Your task to perform on an android device: Clear the cart on ebay.com. Add "usb-c to usb-b" to the cart on ebay.com Image 0: 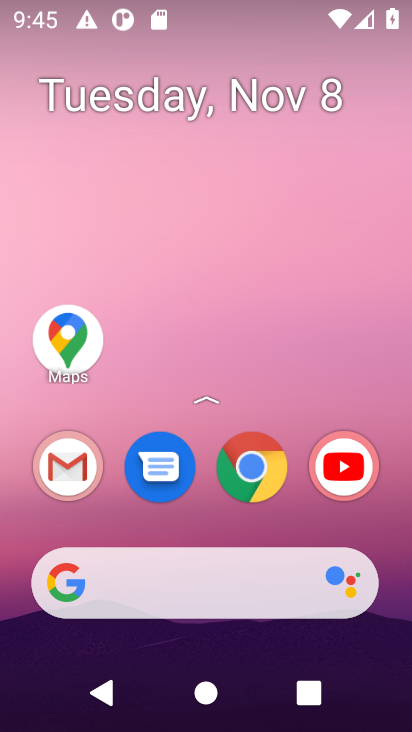
Step 0: click (229, 582)
Your task to perform on an android device: Clear the cart on ebay.com. Add "usb-c to usb-b" to the cart on ebay.com Image 1: 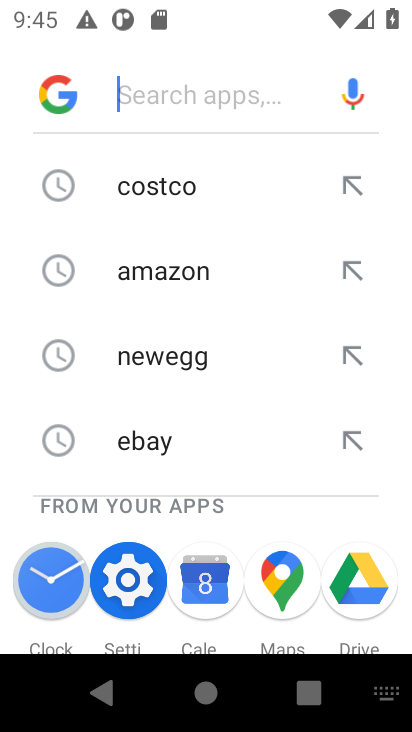
Step 1: type "ebay.com"
Your task to perform on an android device: Clear the cart on ebay.com. Add "usb-c to usb-b" to the cart on ebay.com Image 2: 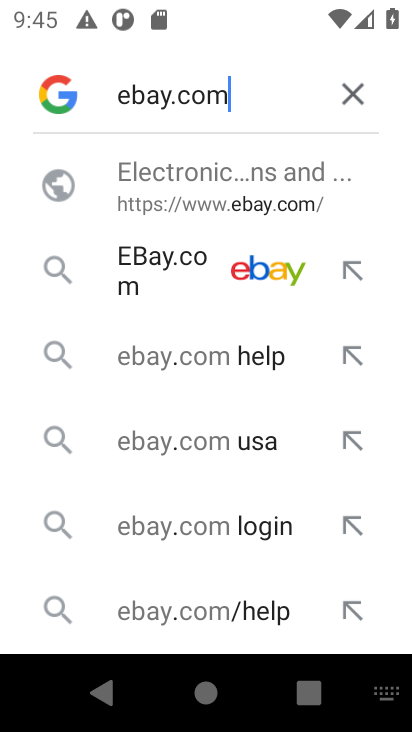
Step 2: click (163, 276)
Your task to perform on an android device: Clear the cart on ebay.com. Add "usb-c to usb-b" to the cart on ebay.com Image 3: 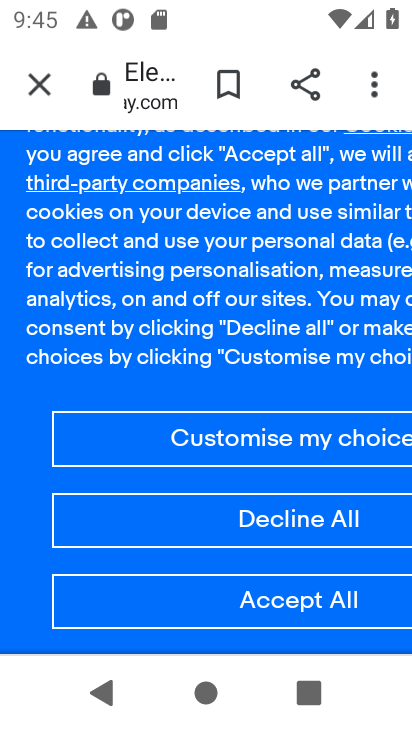
Step 3: click (310, 233)
Your task to perform on an android device: Clear the cart on ebay.com. Add "usb-c to usb-b" to the cart on ebay.com Image 4: 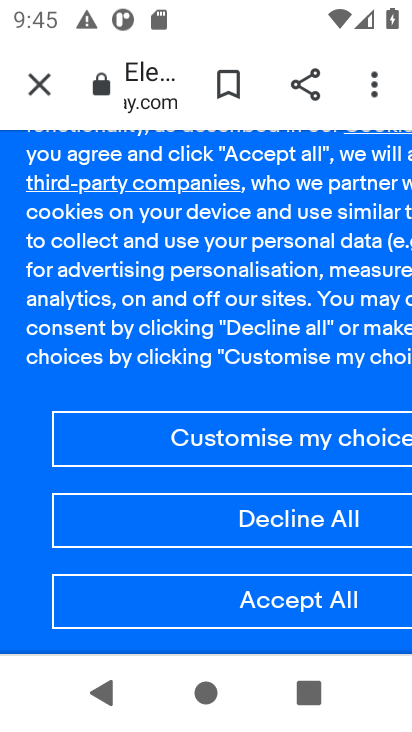
Step 4: task complete